Your task to perform on an android device: move an email to a new category in the gmail app Image 0: 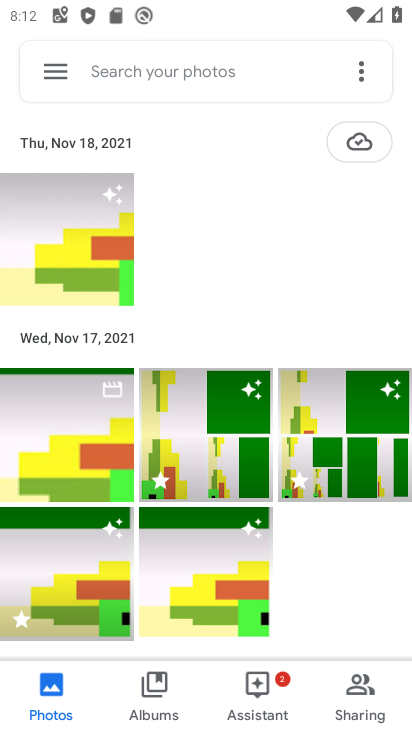
Step 0: press home button
Your task to perform on an android device: move an email to a new category in the gmail app Image 1: 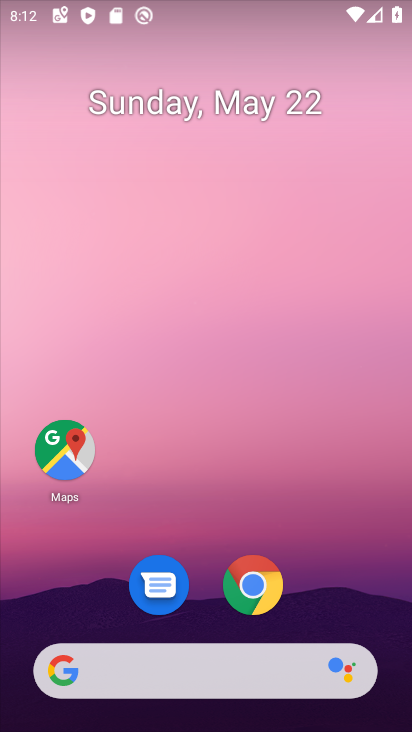
Step 1: drag from (190, 498) to (208, 18)
Your task to perform on an android device: move an email to a new category in the gmail app Image 2: 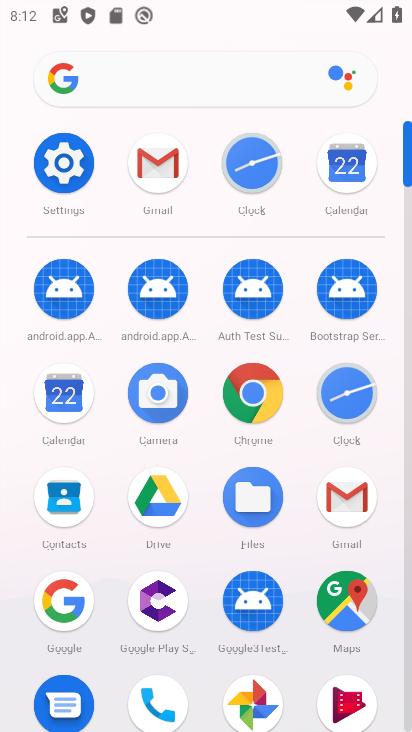
Step 2: click (162, 163)
Your task to perform on an android device: move an email to a new category in the gmail app Image 3: 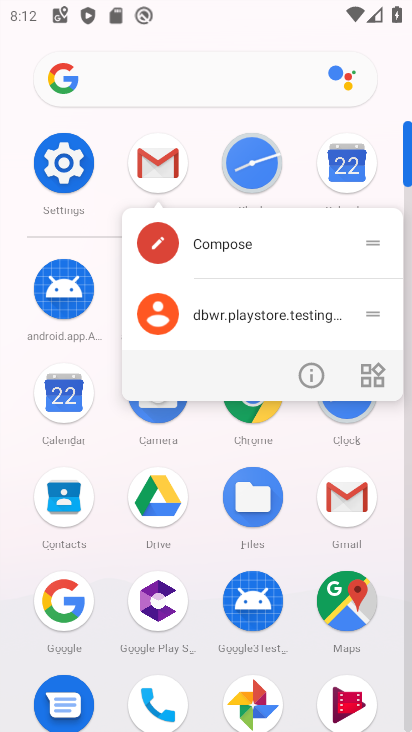
Step 3: click (162, 152)
Your task to perform on an android device: move an email to a new category in the gmail app Image 4: 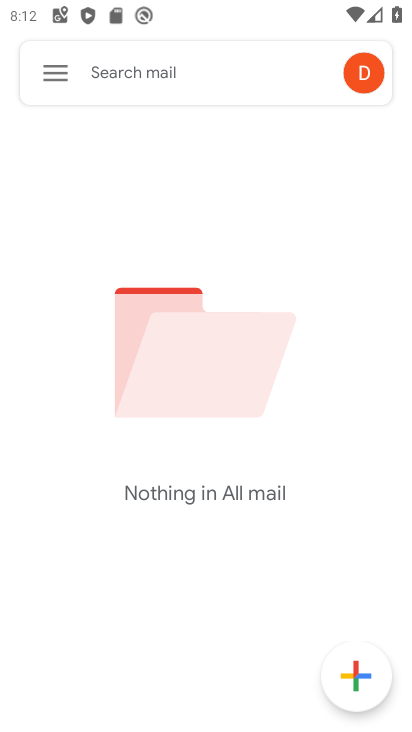
Step 4: task complete